Your task to perform on an android device: visit the assistant section in the google photos Image 0: 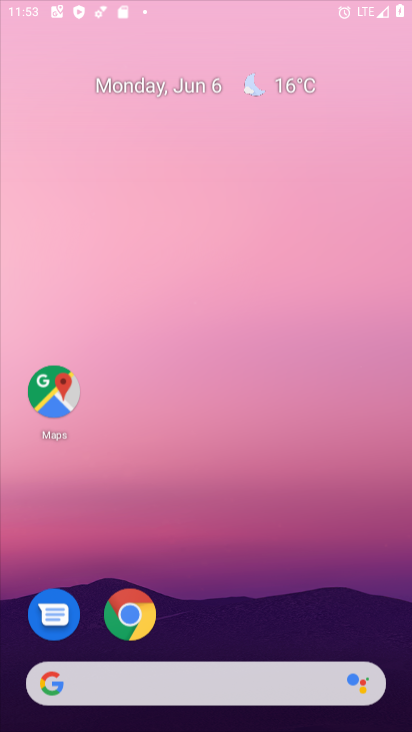
Step 0: press home button
Your task to perform on an android device: visit the assistant section in the google photos Image 1: 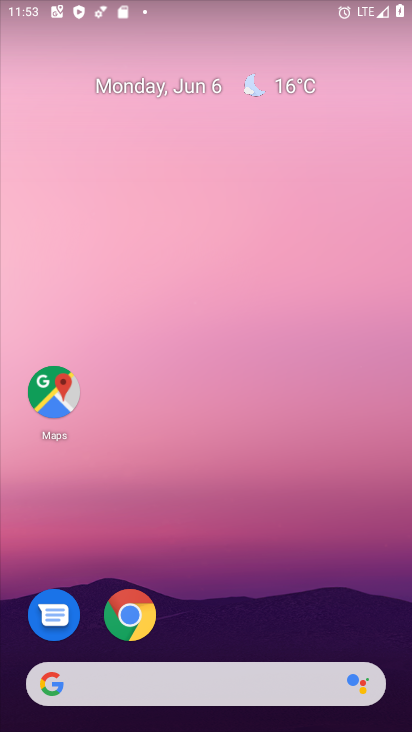
Step 1: click (216, 635)
Your task to perform on an android device: visit the assistant section in the google photos Image 2: 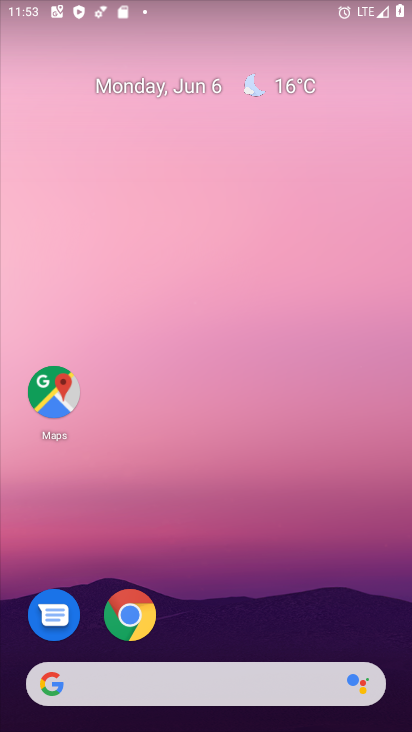
Step 2: drag from (224, 451) to (224, 356)
Your task to perform on an android device: visit the assistant section in the google photos Image 3: 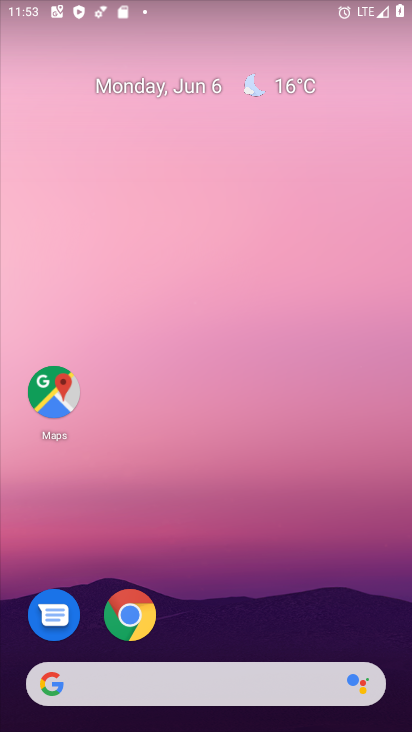
Step 3: click (259, 40)
Your task to perform on an android device: visit the assistant section in the google photos Image 4: 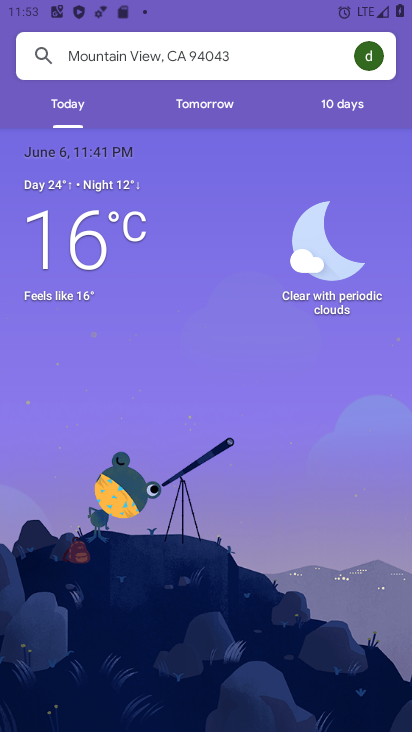
Step 4: press home button
Your task to perform on an android device: visit the assistant section in the google photos Image 5: 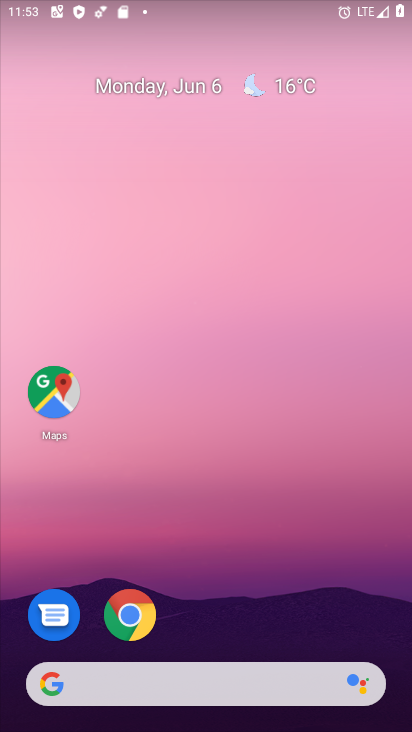
Step 5: drag from (216, 626) to (221, 136)
Your task to perform on an android device: visit the assistant section in the google photos Image 6: 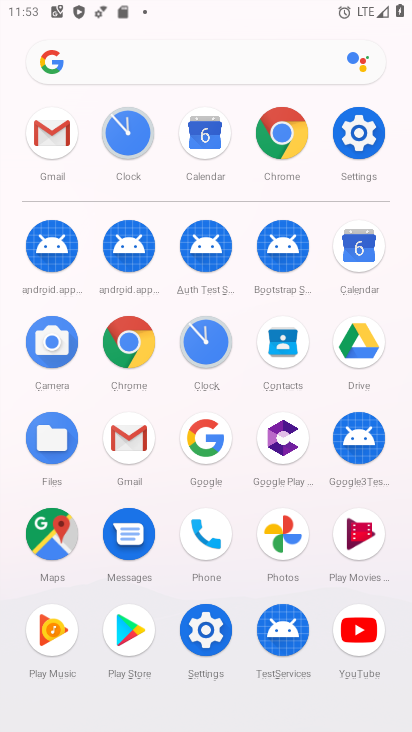
Step 6: click (281, 528)
Your task to perform on an android device: visit the assistant section in the google photos Image 7: 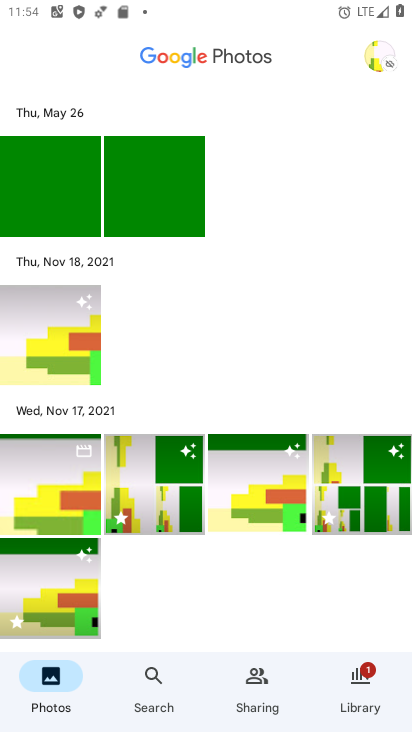
Step 7: click (149, 673)
Your task to perform on an android device: visit the assistant section in the google photos Image 8: 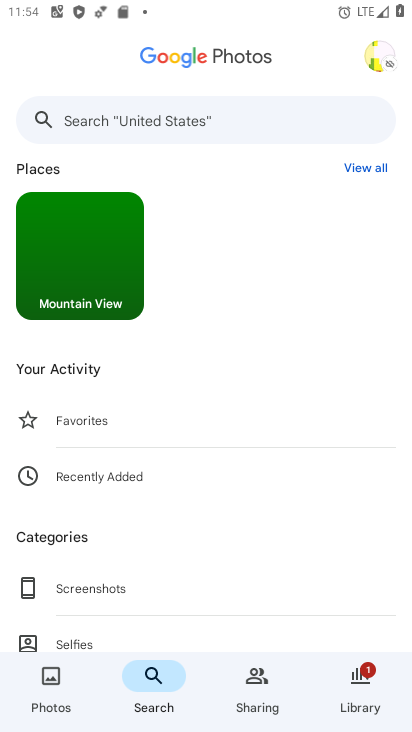
Step 8: press home button
Your task to perform on an android device: visit the assistant section in the google photos Image 9: 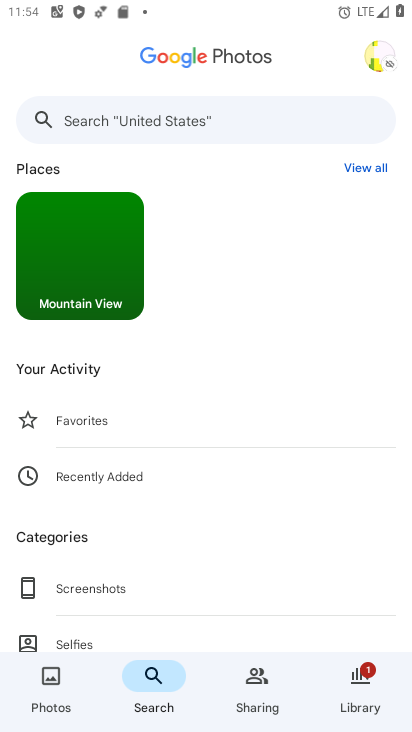
Step 9: press home button
Your task to perform on an android device: visit the assistant section in the google photos Image 10: 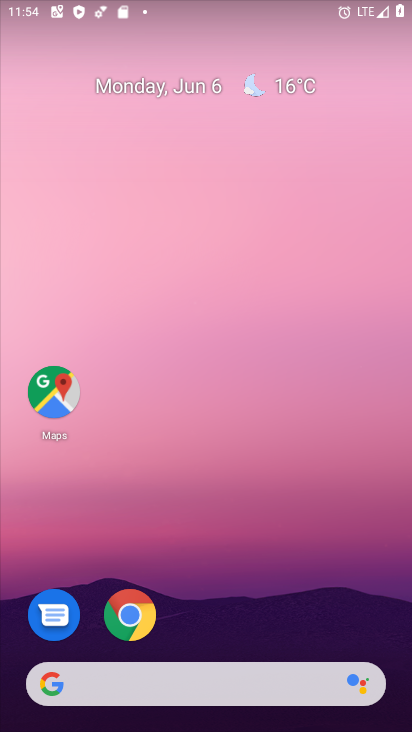
Step 10: drag from (202, 629) to (228, 56)
Your task to perform on an android device: visit the assistant section in the google photos Image 11: 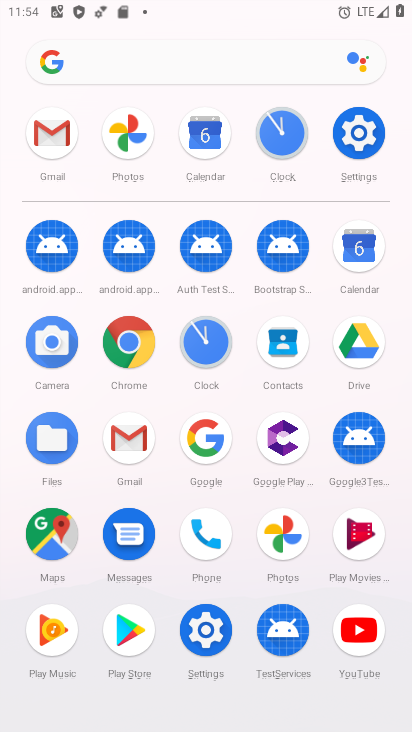
Step 11: click (280, 527)
Your task to perform on an android device: visit the assistant section in the google photos Image 12: 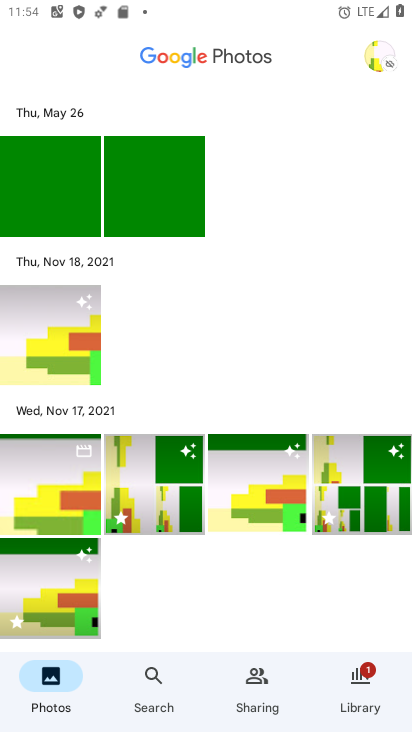
Step 12: click (147, 675)
Your task to perform on an android device: visit the assistant section in the google photos Image 13: 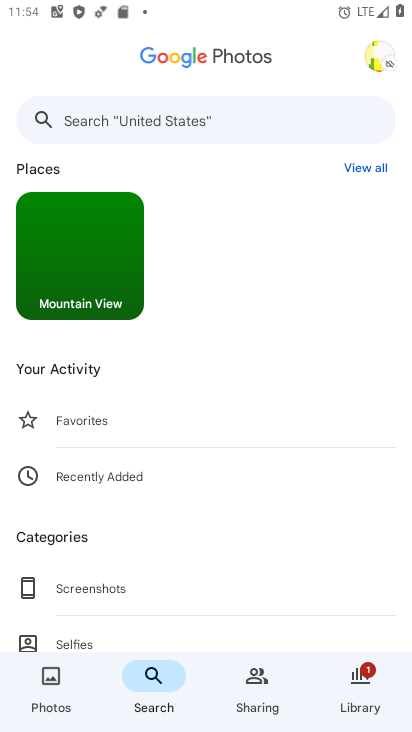
Step 13: click (130, 110)
Your task to perform on an android device: visit the assistant section in the google photos Image 14: 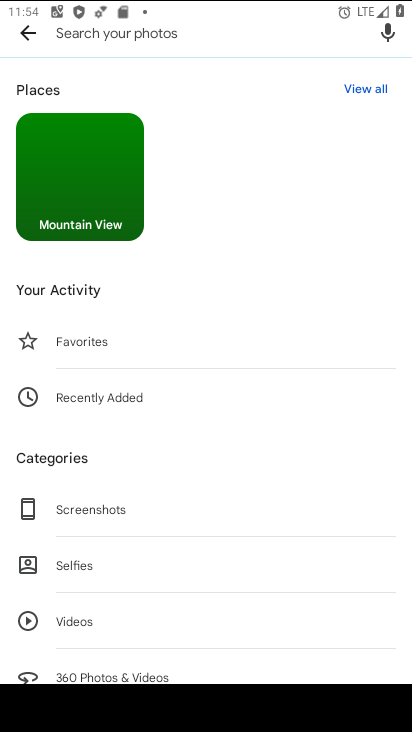
Step 14: type "associate"
Your task to perform on an android device: visit the assistant section in the google photos Image 15: 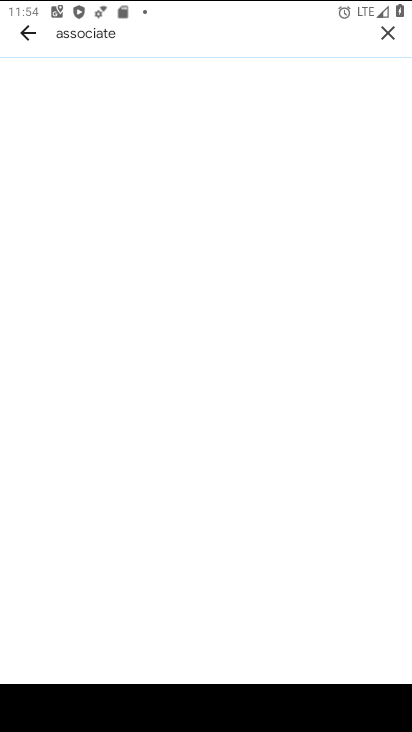
Step 15: task complete